Your task to perform on an android device: Search for sushi restaurants on Maps Image 0: 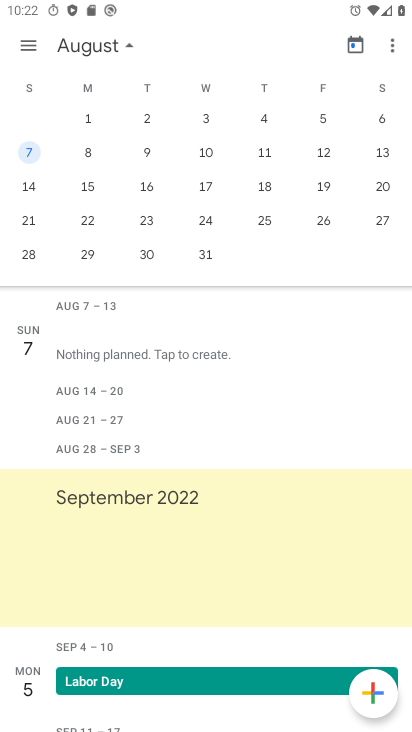
Step 0: press home button
Your task to perform on an android device: Search for sushi restaurants on Maps Image 1: 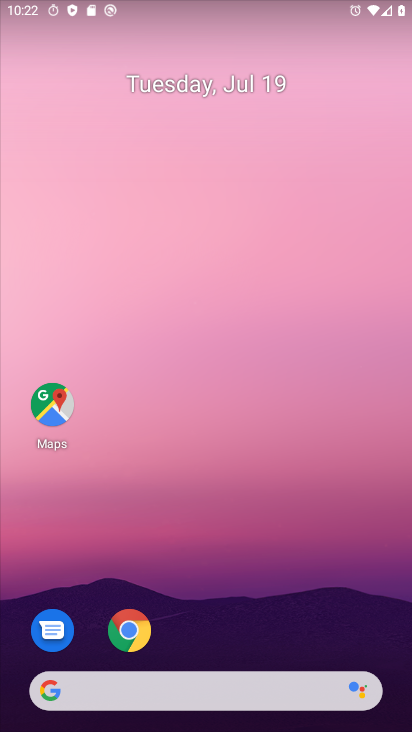
Step 1: click (59, 407)
Your task to perform on an android device: Search for sushi restaurants on Maps Image 2: 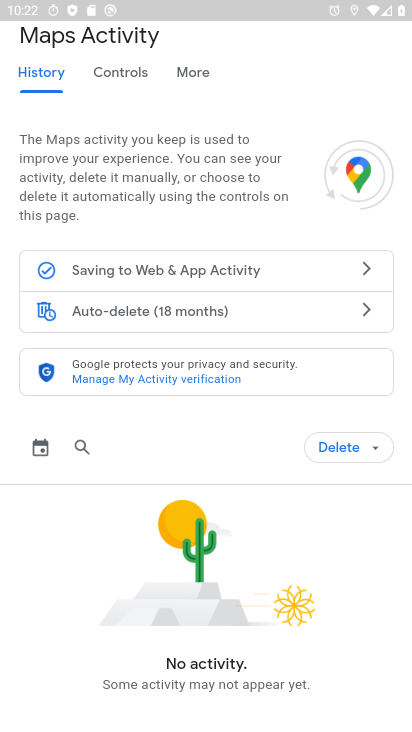
Step 2: press back button
Your task to perform on an android device: Search for sushi restaurants on Maps Image 3: 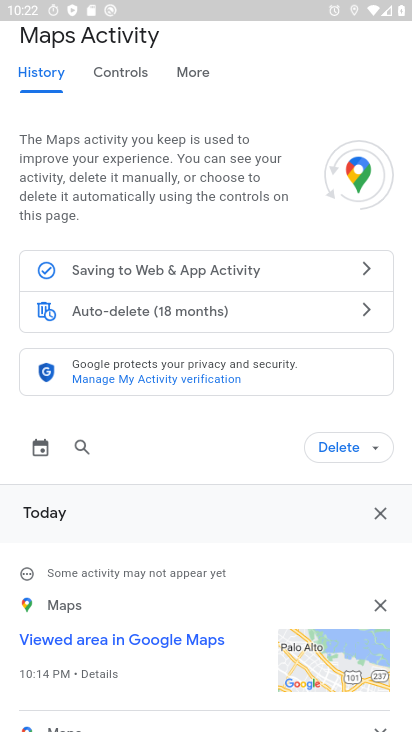
Step 3: press back button
Your task to perform on an android device: Search for sushi restaurants on Maps Image 4: 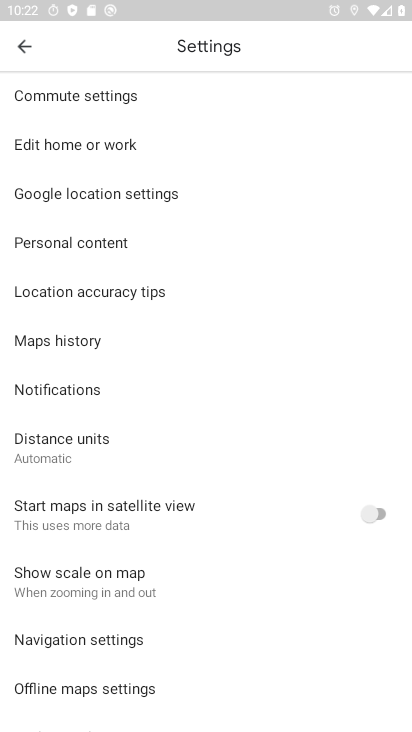
Step 4: press back button
Your task to perform on an android device: Search for sushi restaurants on Maps Image 5: 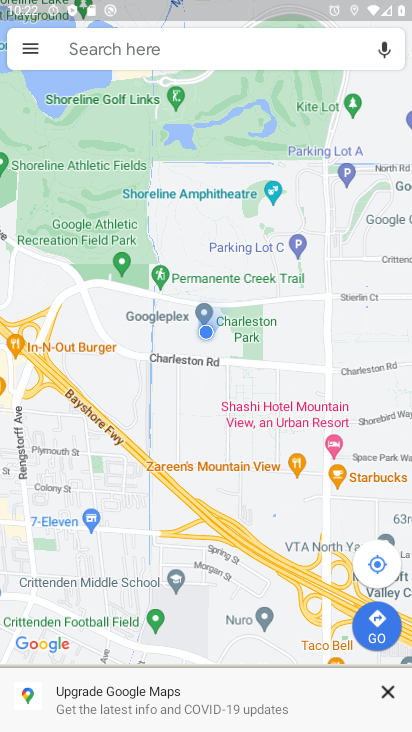
Step 5: type " sushi restaurants"
Your task to perform on an android device: Search for sushi restaurants on Maps Image 6: 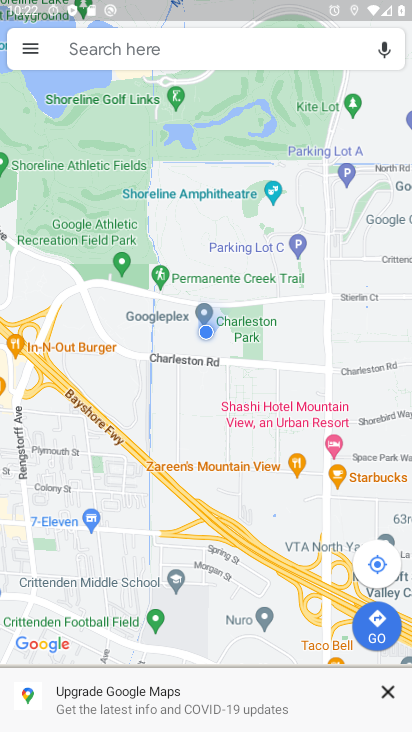
Step 6: click (74, 54)
Your task to perform on an android device: Search for sushi restaurants on Maps Image 7: 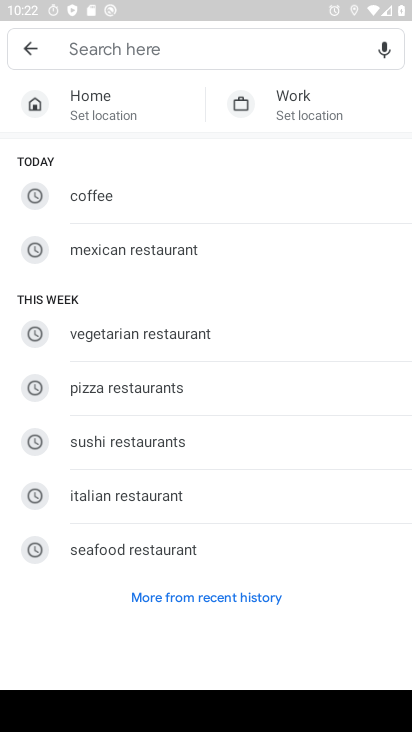
Step 7: click (154, 440)
Your task to perform on an android device: Search for sushi restaurants on Maps Image 8: 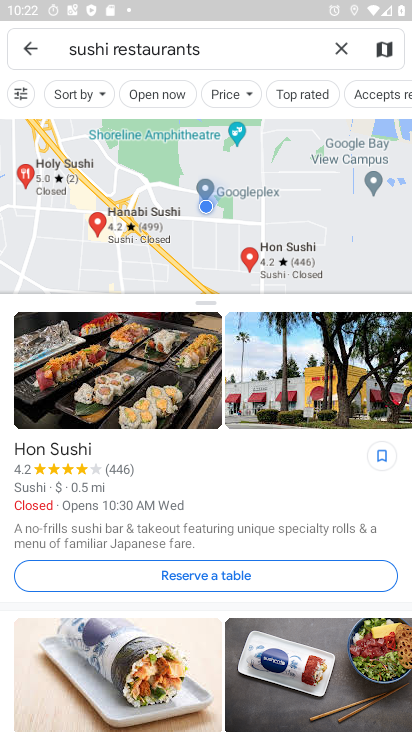
Step 8: task complete